Your task to perform on an android device: Go to battery settings Image 0: 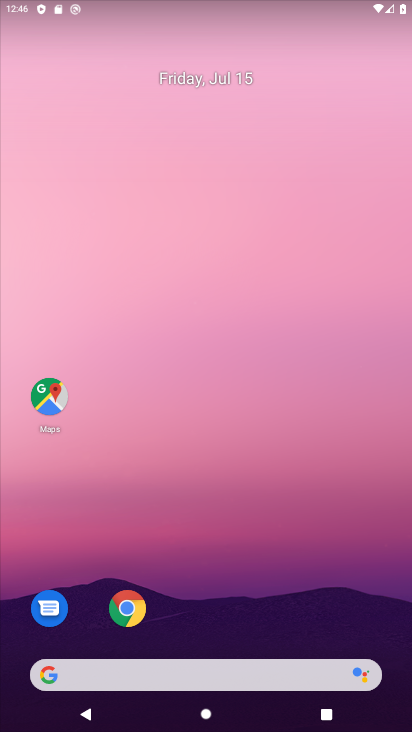
Step 0: drag from (291, 576) to (326, 260)
Your task to perform on an android device: Go to battery settings Image 1: 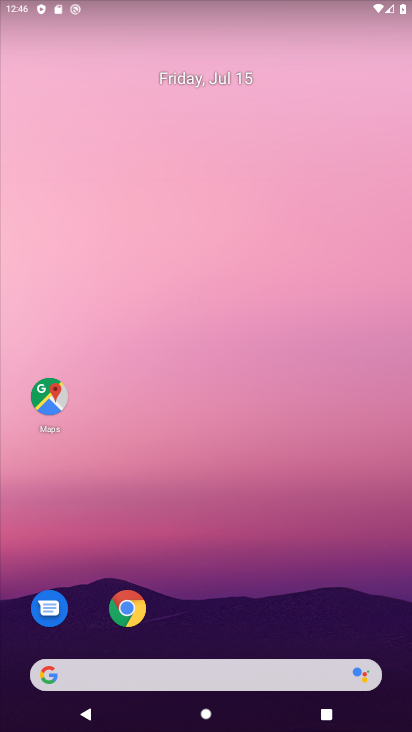
Step 1: drag from (221, 634) to (264, 193)
Your task to perform on an android device: Go to battery settings Image 2: 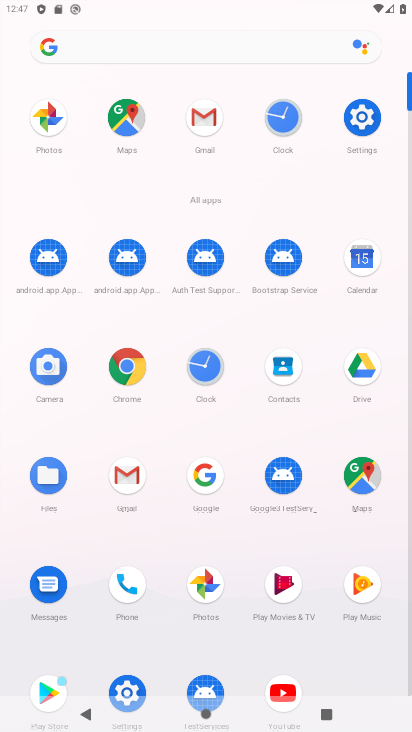
Step 2: click (372, 119)
Your task to perform on an android device: Go to battery settings Image 3: 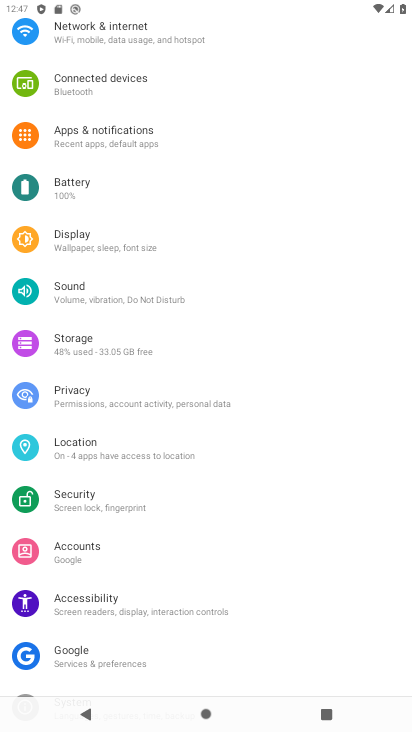
Step 3: click (71, 178)
Your task to perform on an android device: Go to battery settings Image 4: 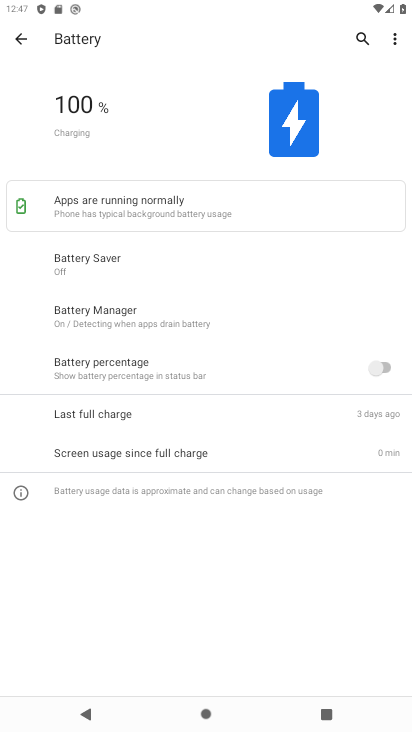
Step 4: task complete